Your task to perform on an android device: Go to CNN.com Image 0: 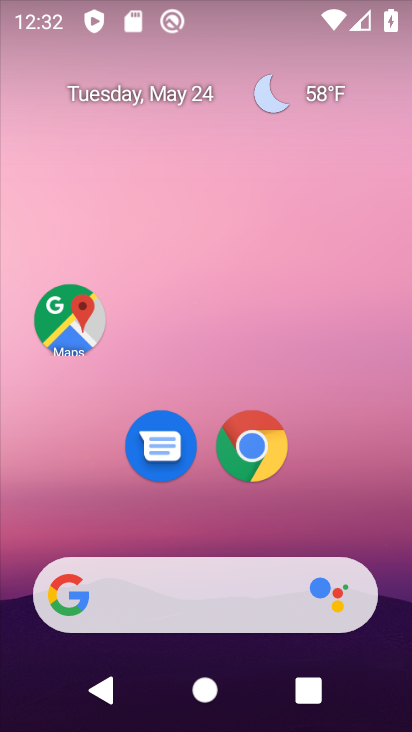
Step 0: drag from (216, 634) to (258, 126)
Your task to perform on an android device: Go to CNN.com Image 1: 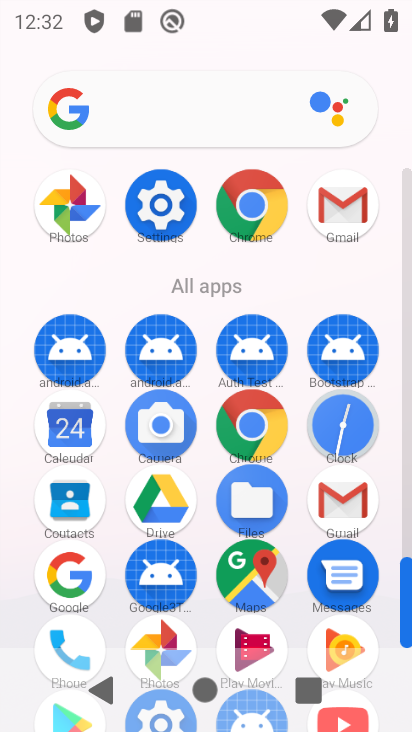
Step 1: click (260, 211)
Your task to perform on an android device: Go to CNN.com Image 2: 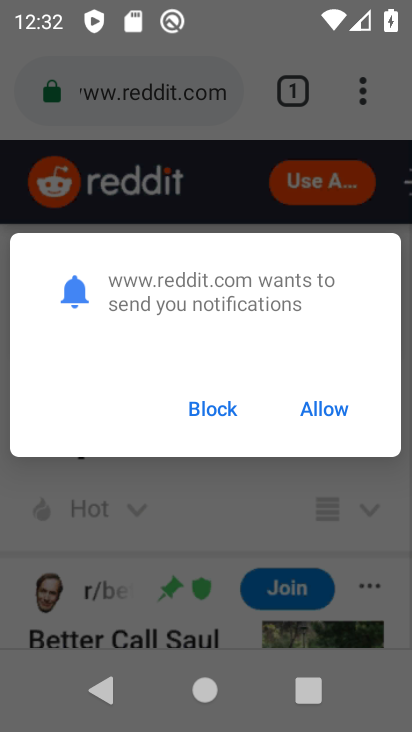
Step 2: click (217, 409)
Your task to perform on an android device: Go to CNN.com Image 3: 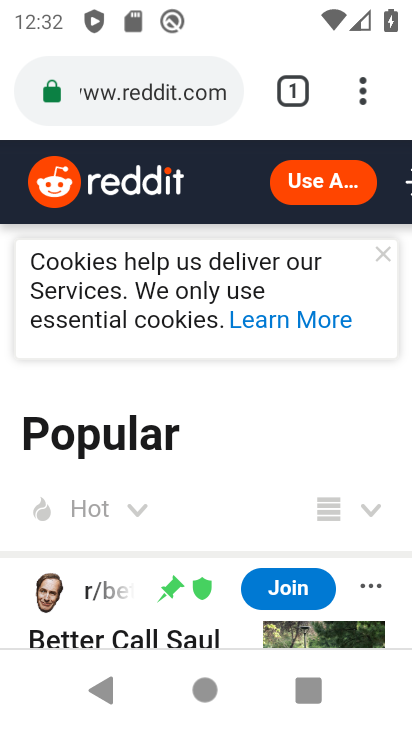
Step 3: click (191, 98)
Your task to perform on an android device: Go to CNN.com Image 4: 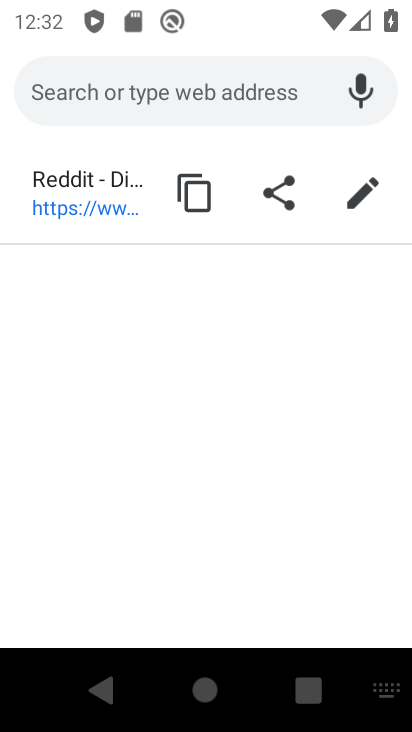
Step 4: type "cnn"
Your task to perform on an android device: Go to CNN.com Image 5: 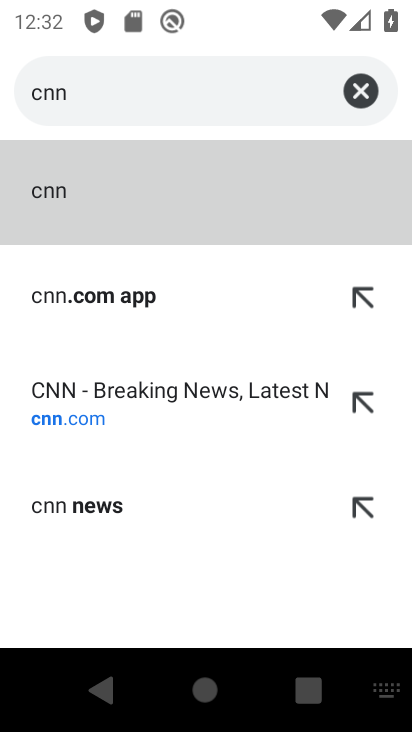
Step 5: click (145, 391)
Your task to perform on an android device: Go to CNN.com Image 6: 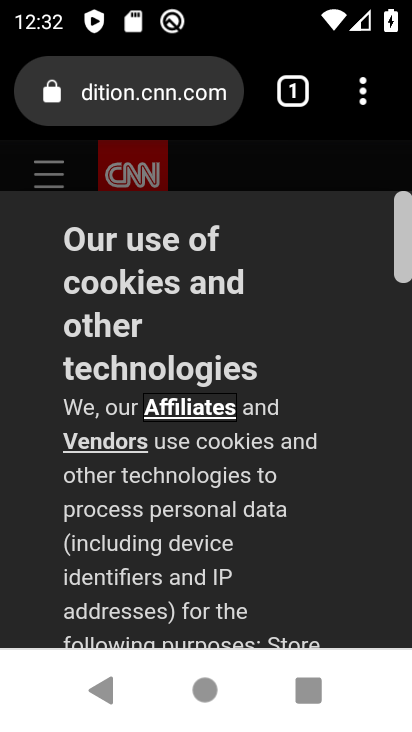
Step 6: task complete